Your task to perform on an android device: Open the phone app and click the voicemail tab. Image 0: 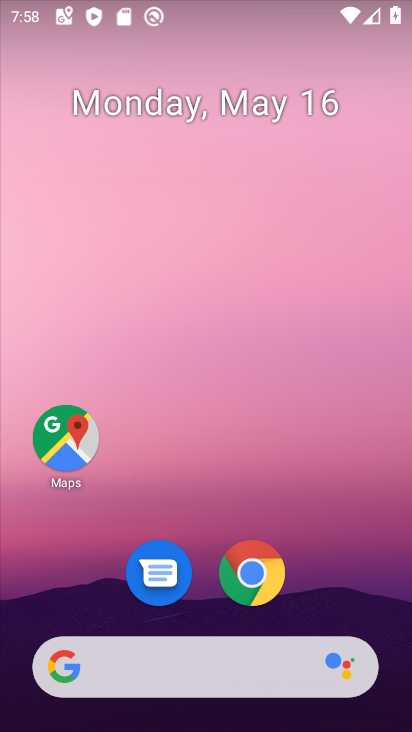
Step 0: drag from (377, 592) to (356, 51)
Your task to perform on an android device: Open the phone app and click the voicemail tab. Image 1: 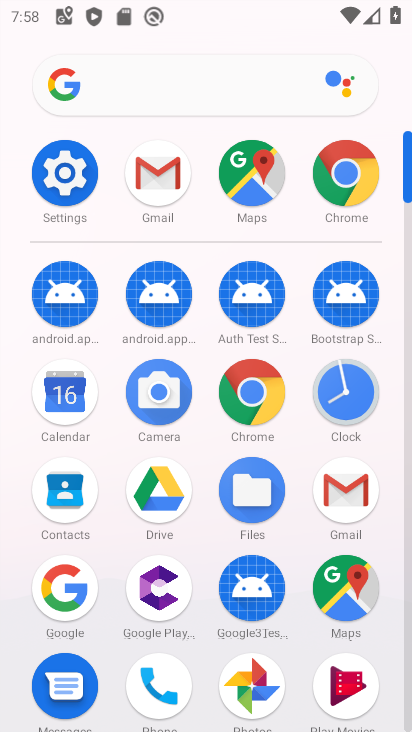
Step 1: click (171, 687)
Your task to perform on an android device: Open the phone app and click the voicemail tab. Image 2: 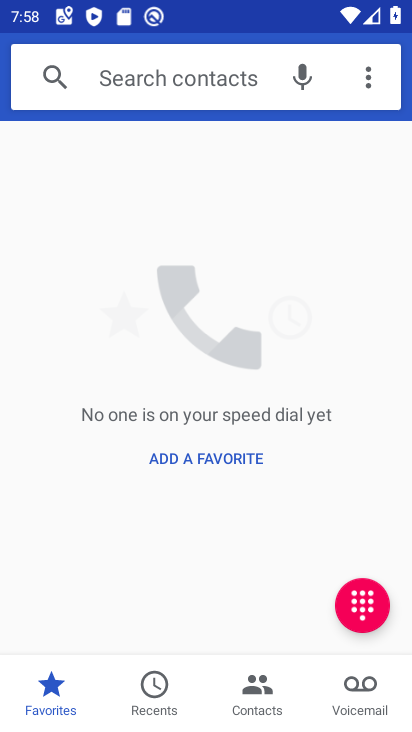
Step 2: click (373, 695)
Your task to perform on an android device: Open the phone app and click the voicemail tab. Image 3: 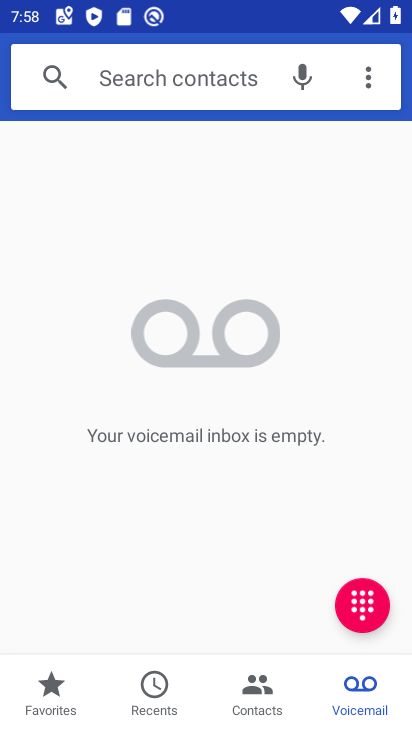
Step 3: task complete